Your task to perform on an android device: add a contact Image 0: 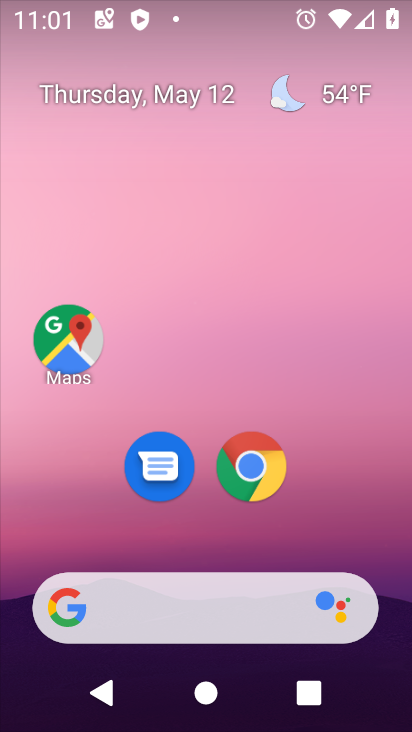
Step 0: drag from (362, 540) to (346, 87)
Your task to perform on an android device: add a contact Image 1: 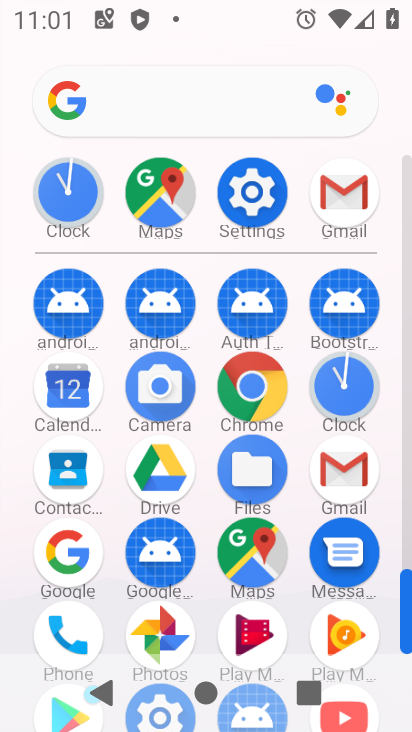
Step 1: drag from (286, 622) to (295, 357)
Your task to perform on an android device: add a contact Image 2: 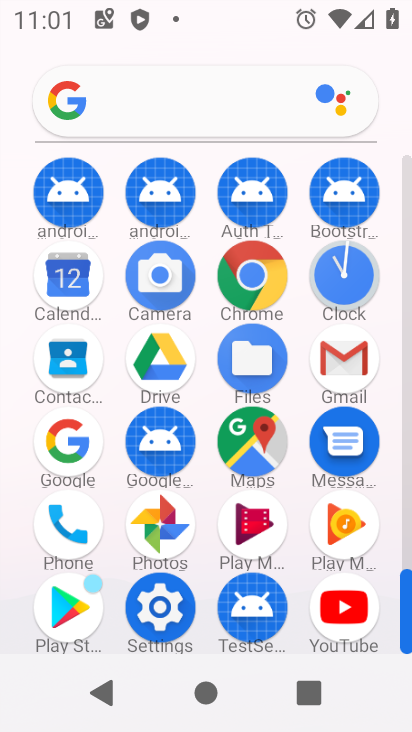
Step 2: click (54, 358)
Your task to perform on an android device: add a contact Image 3: 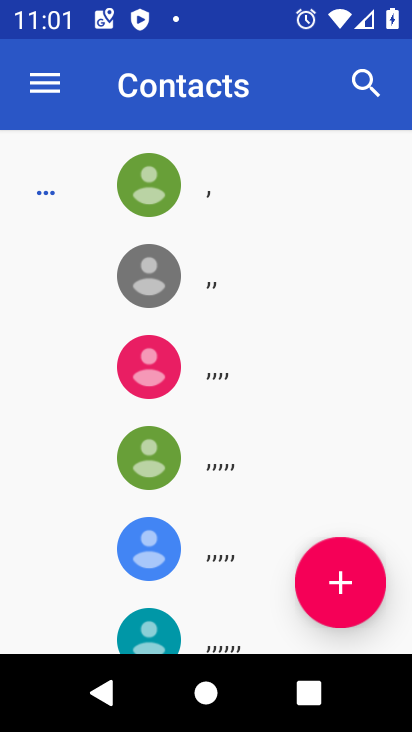
Step 3: click (328, 608)
Your task to perform on an android device: add a contact Image 4: 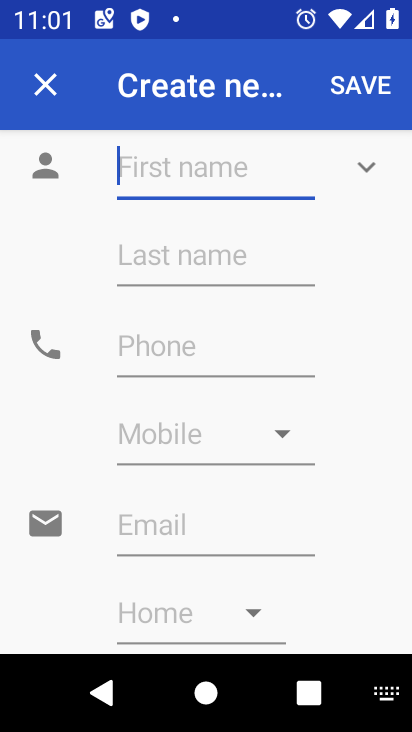
Step 4: click (182, 163)
Your task to perform on an android device: add a contact Image 5: 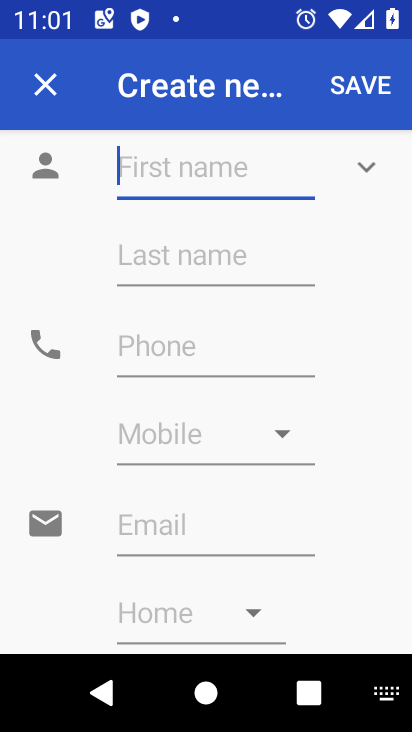
Step 5: type "mirza"
Your task to perform on an android device: add a contact Image 6: 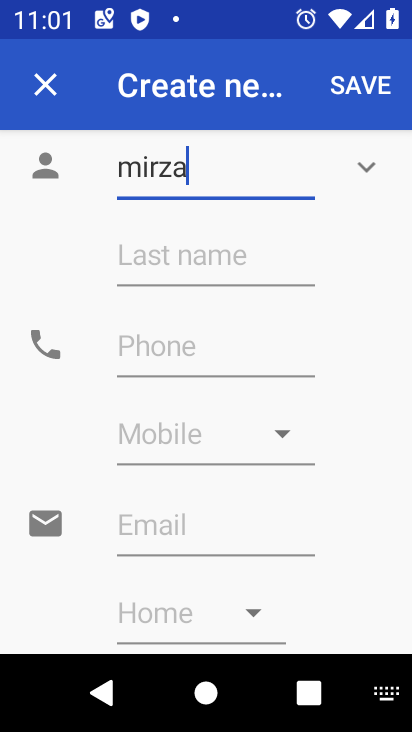
Step 6: click (225, 356)
Your task to perform on an android device: add a contact Image 7: 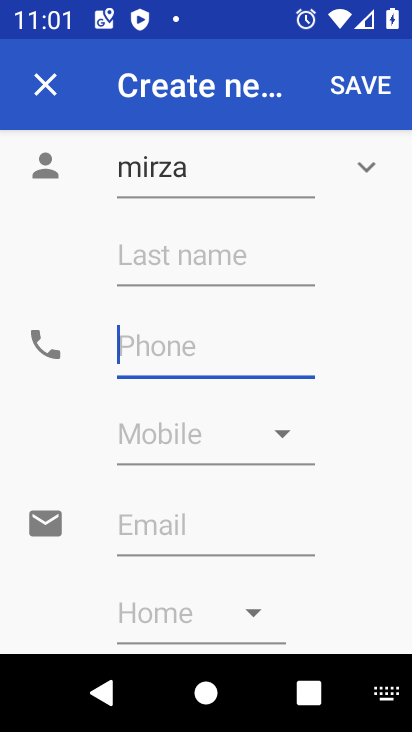
Step 7: type "9838943894389"
Your task to perform on an android device: add a contact Image 8: 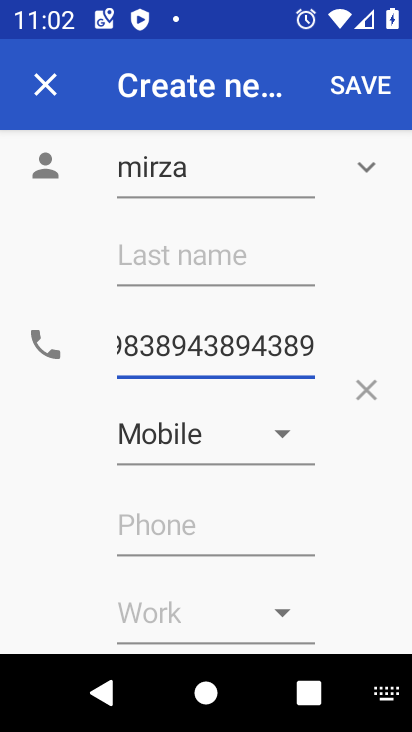
Step 8: task complete